Your task to perform on an android device: Clear the cart on costco. Add "razer thresher" to the cart on costco, then select checkout. Image 0: 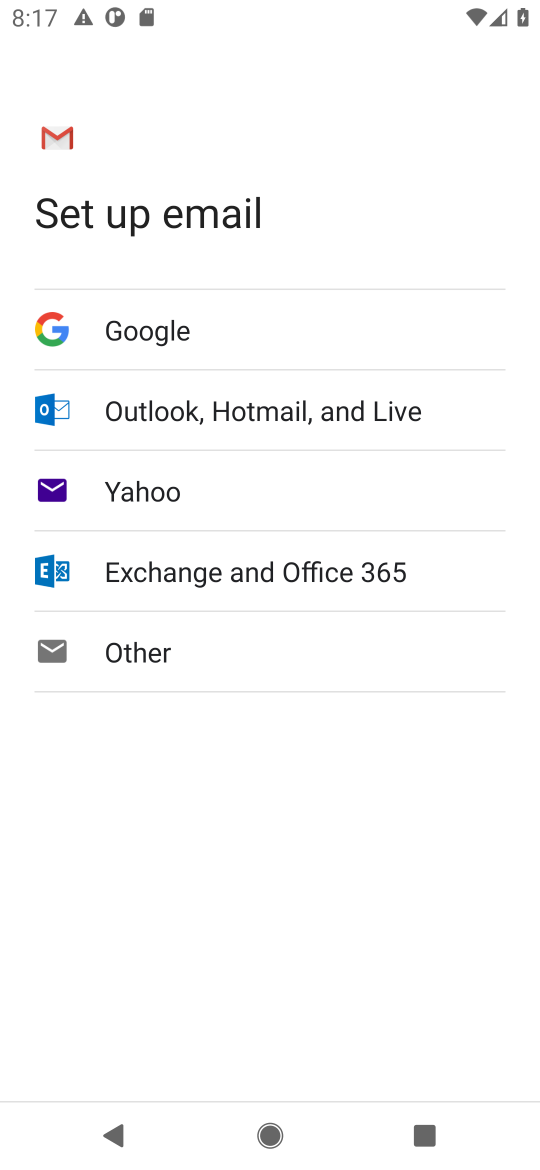
Step 0: press home button
Your task to perform on an android device: Clear the cart on costco. Add "razer thresher" to the cart on costco, then select checkout. Image 1: 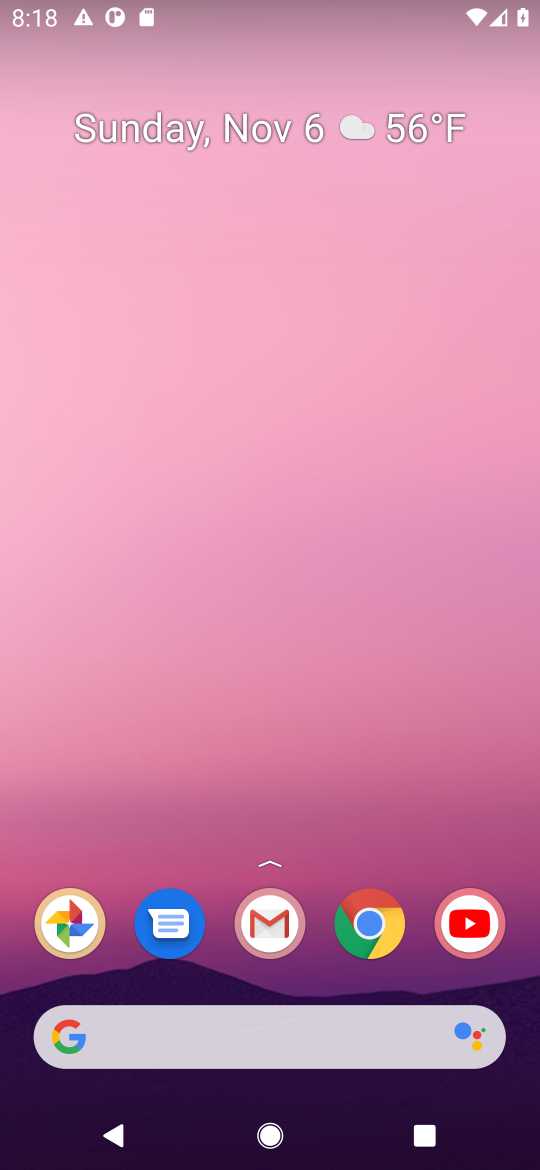
Step 1: click (374, 935)
Your task to perform on an android device: Clear the cart on costco. Add "razer thresher" to the cart on costco, then select checkout. Image 2: 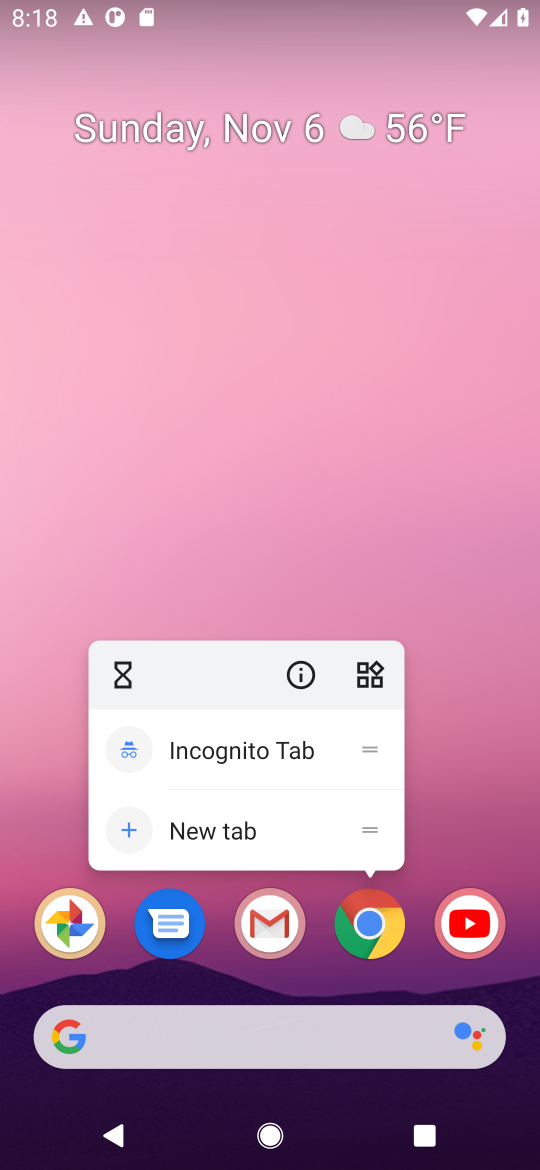
Step 2: click (374, 935)
Your task to perform on an android device: Clear the cart on costco. Add "razer thresher" to the cart on costco, then select checkout. Image 3: 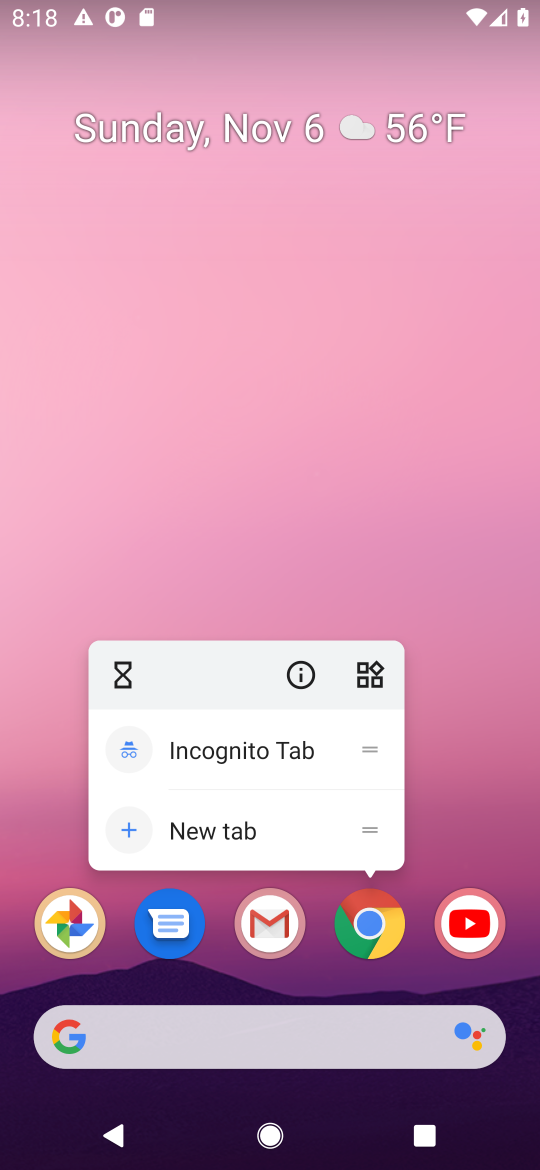
Step 3: click (374, 933)
Your task to perform on an android device: Clear the cart on costco. Add "razer thresher" to the cart on costco, then select checkout. Image 4: 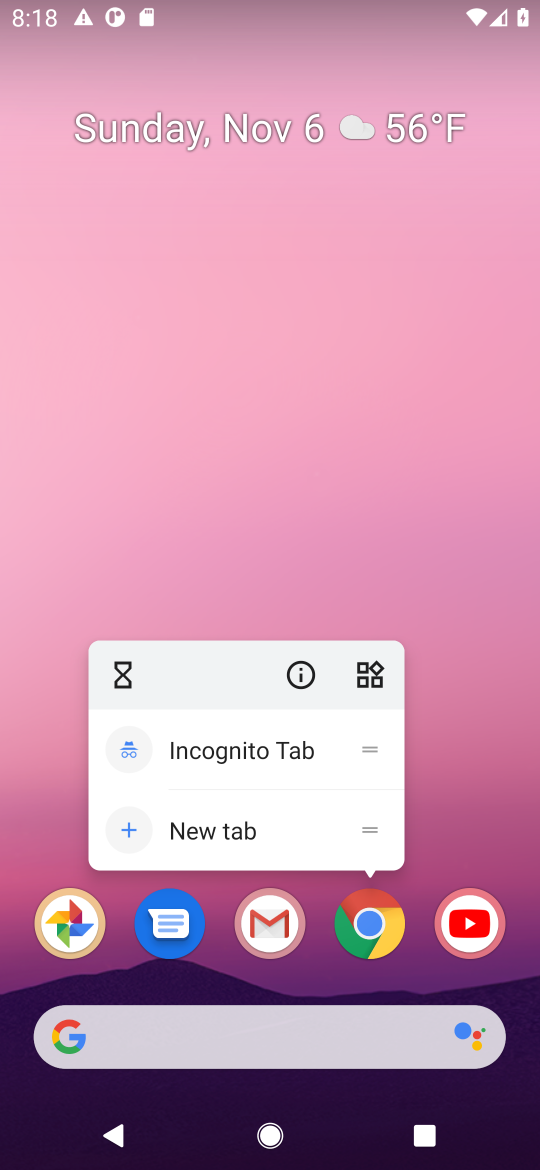
Step 4: click (374, 933)
Your task to perform on an android device: Clear the cart on costco. Add "razer thresher" to the cart on costco, then select checkout. Image 5: 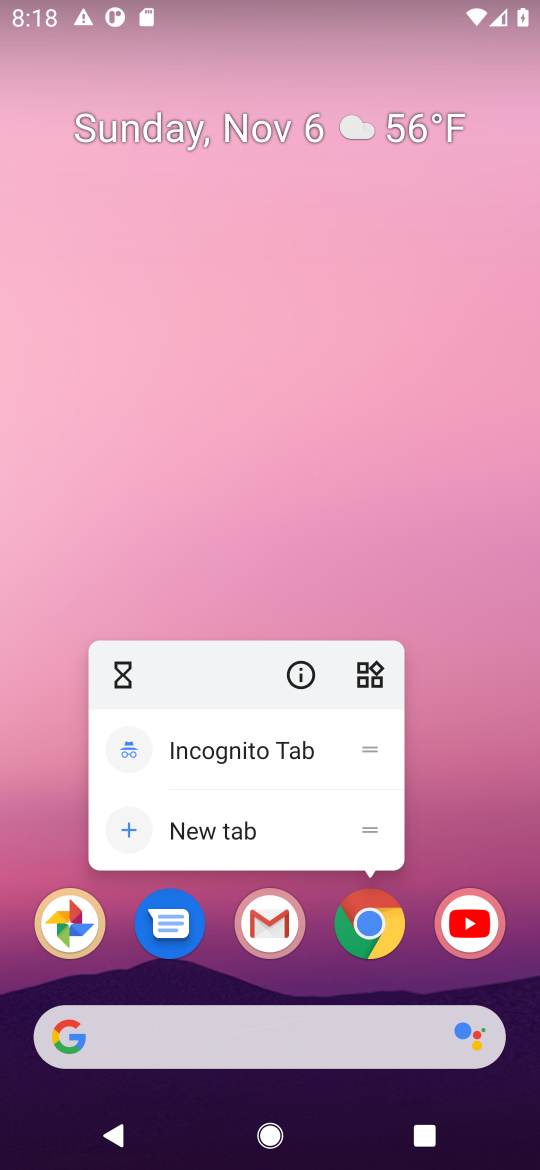
Step 5: click (371, 925)
Your task to perform on an android device: Clear the cart on costco. Add "razer thresher" to the cart on costco, then select checkout. Image 6: 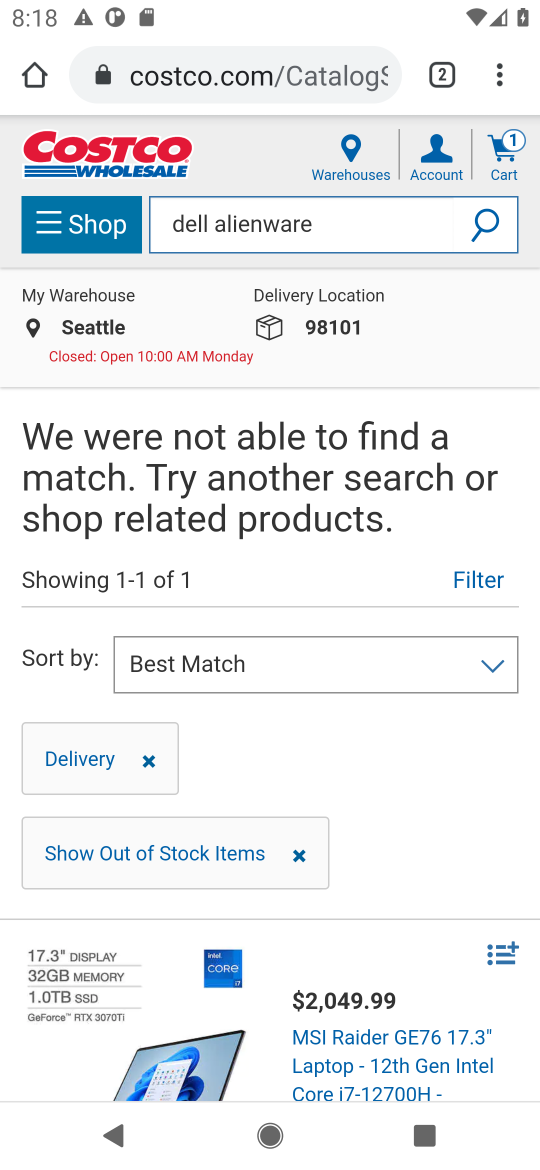
Step 6: click (494, 143)
Your task to perform on an android device: Clear the cart on costco. Add "razer thresher" to the cart on costco, then select checkout. Image 7: 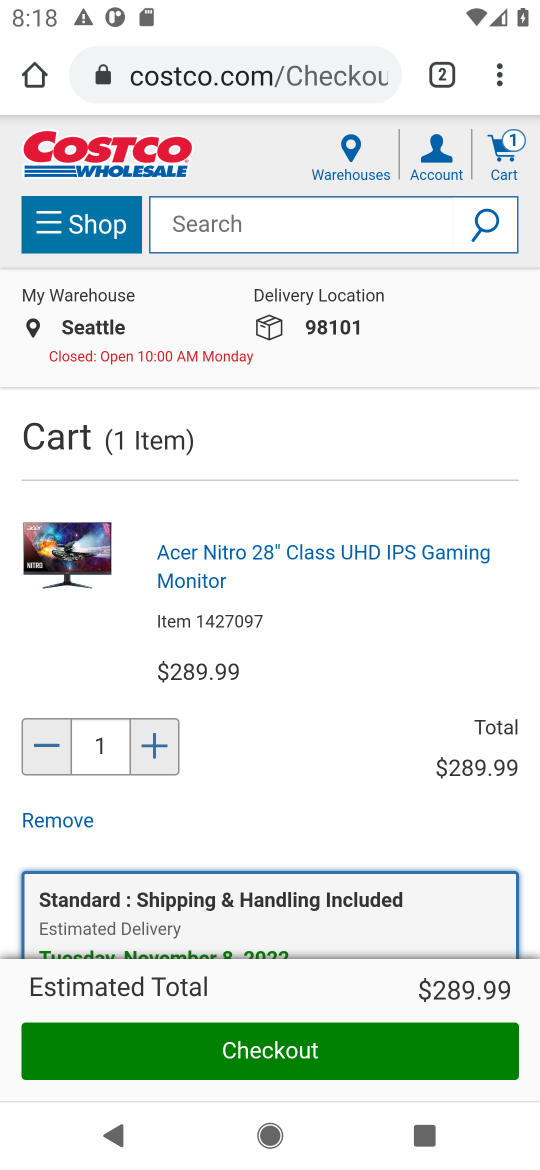
Step 7: click (69, 821)
Your task to perform on an android device: Clear the cart on costco. Add "razer thresher" to the cart on costco, then select checkout. Image 8: 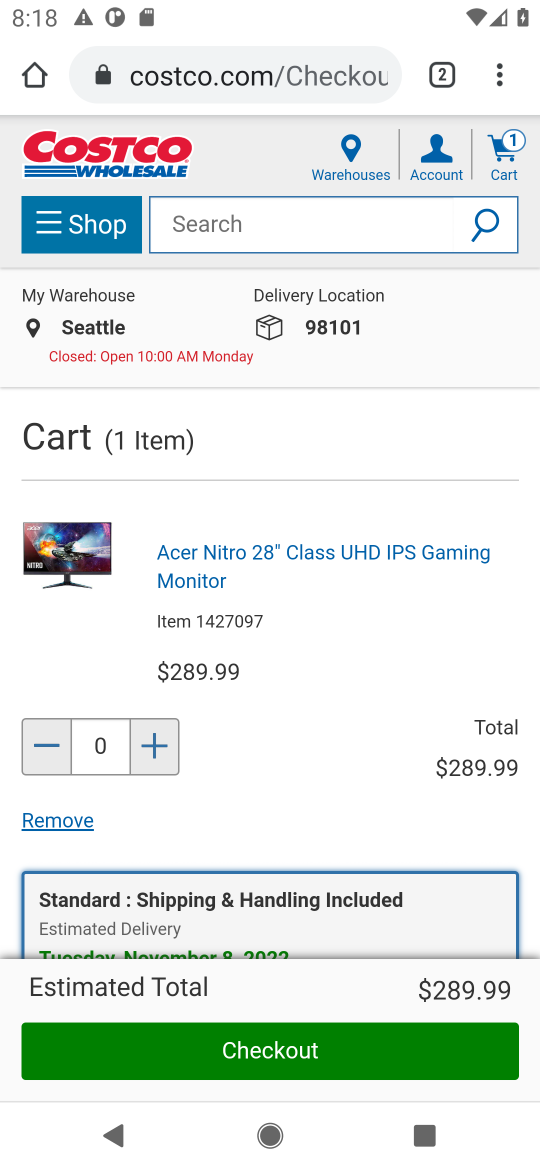
Step 8: drag from (277, 795) to (286, 524)
Your task to perform on an android device: Clear the cart on costco. Add "razer thresher" to the cart on costco, then select checkout. Image 9: 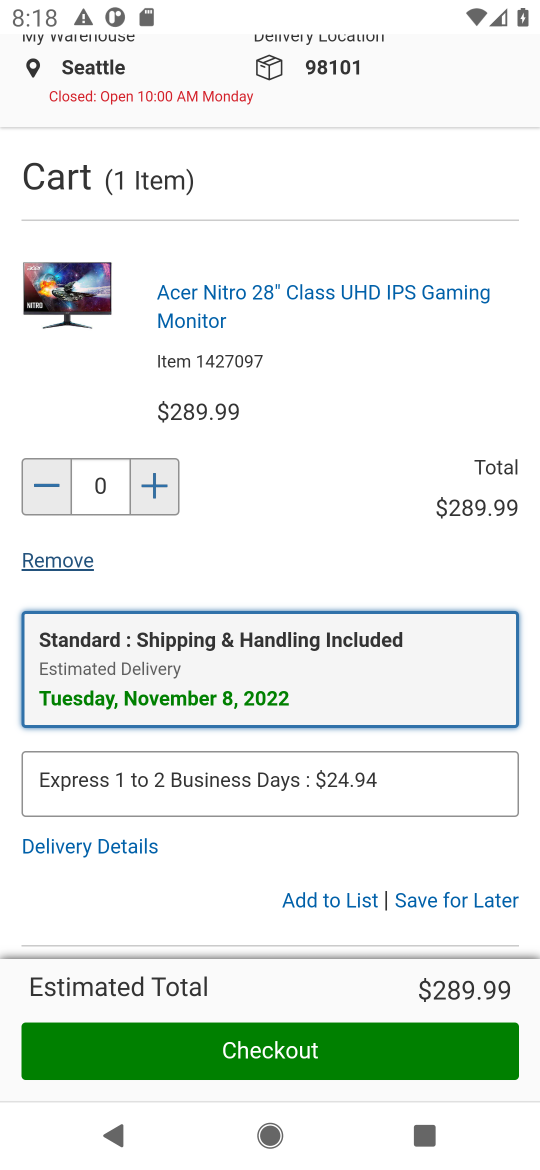
Step 9: drag from (232, 858) to (263, 622)
Your task to perform on an android device: Clear the cart on costco. Add "razer thresher" to the cart on costco, then select checkout. Image 10: 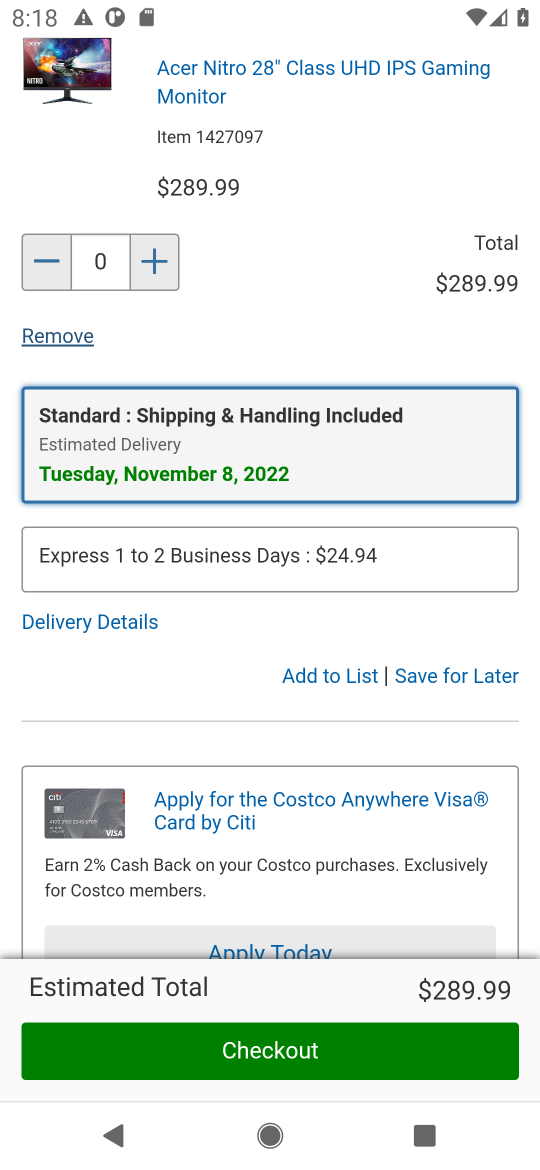
Step 10: click (442, 685)
Your task to perform on an android device: Clear the cart on costco. Add "razer thresher" to the cart on costco, then select checkout. Image 11: 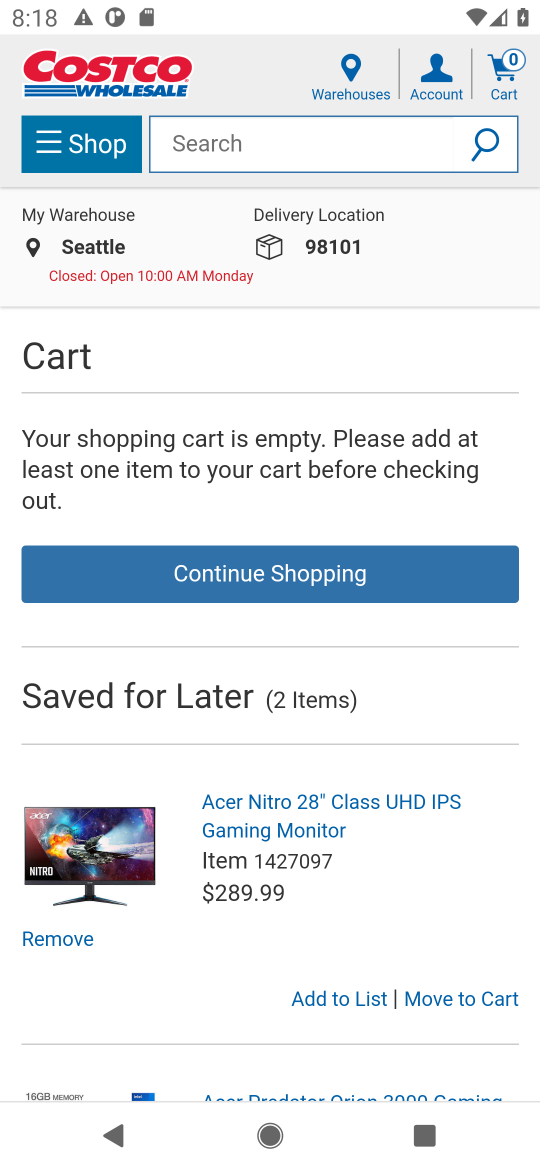
Step 11: click (213, 138)
Your task to perform on an android device: Clear the cart on costco. Add "razer thresher" to the cart on costco, then select checkout. Image 12: 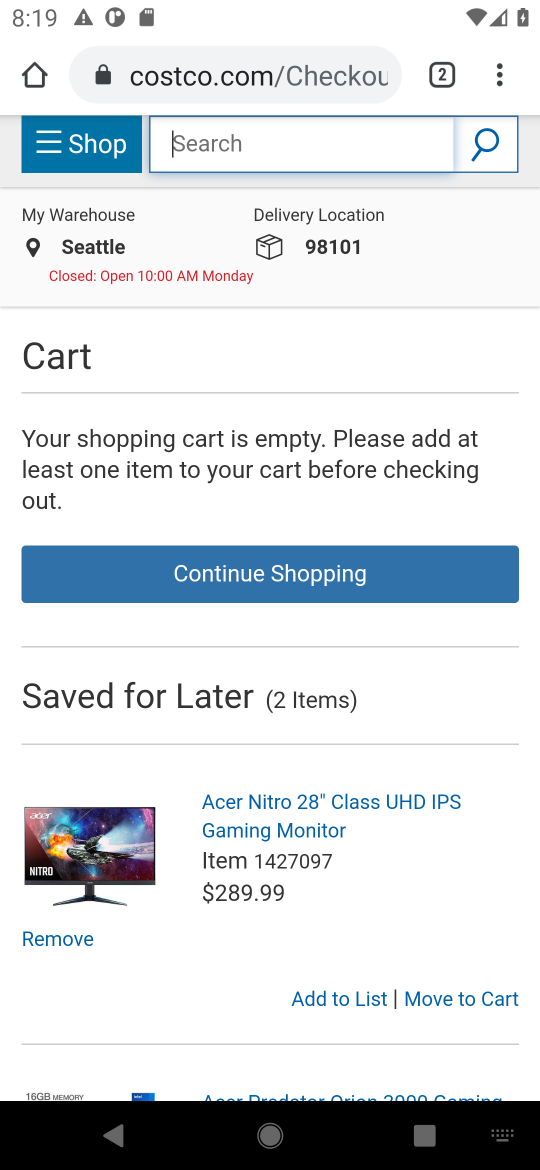
Step 12: type "razer threshe"
Your task to perform on an android device: Clear the cart on costco. Add "razer thresher" to the cart on costco, then select checkout. Image 13: 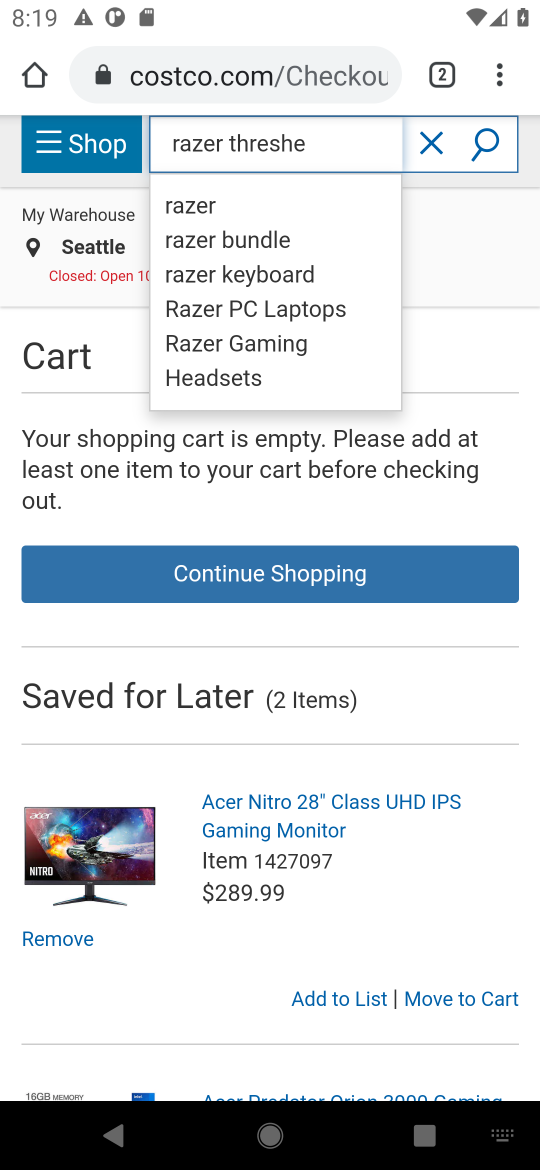
Step 13: click (482, 136)
Your task to perform on an android device: Clear the cart on costco. Add "razer thresher" to the cart on costco, then select checkout. Image 14: 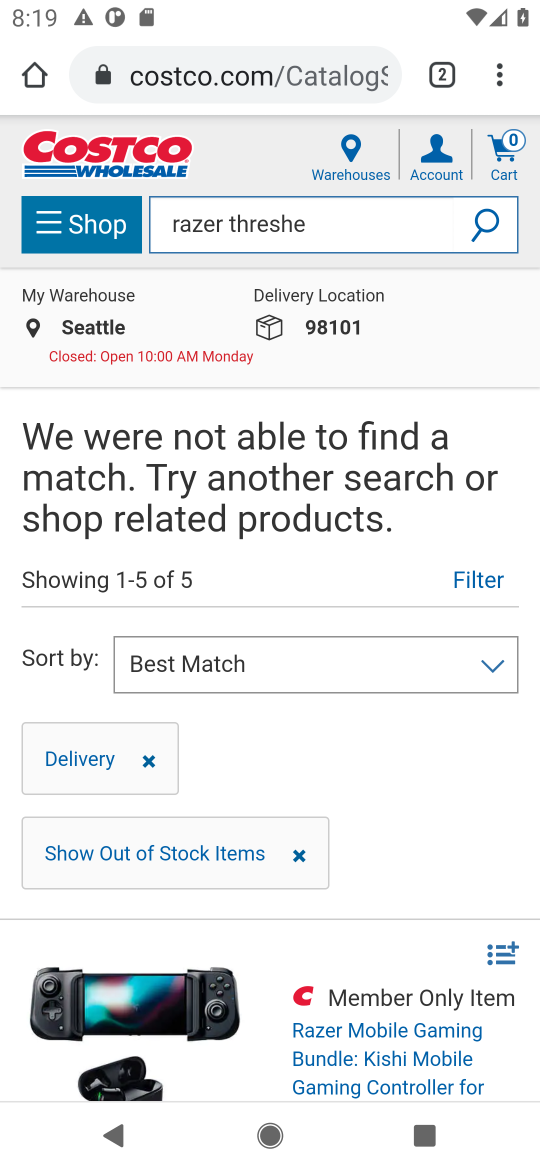
Step 14: click (315, 231)
Your task to perform on an android device: Clear the cart on costco. Add "razer thresher" to the cart on costco, then select checkout. Image 15: 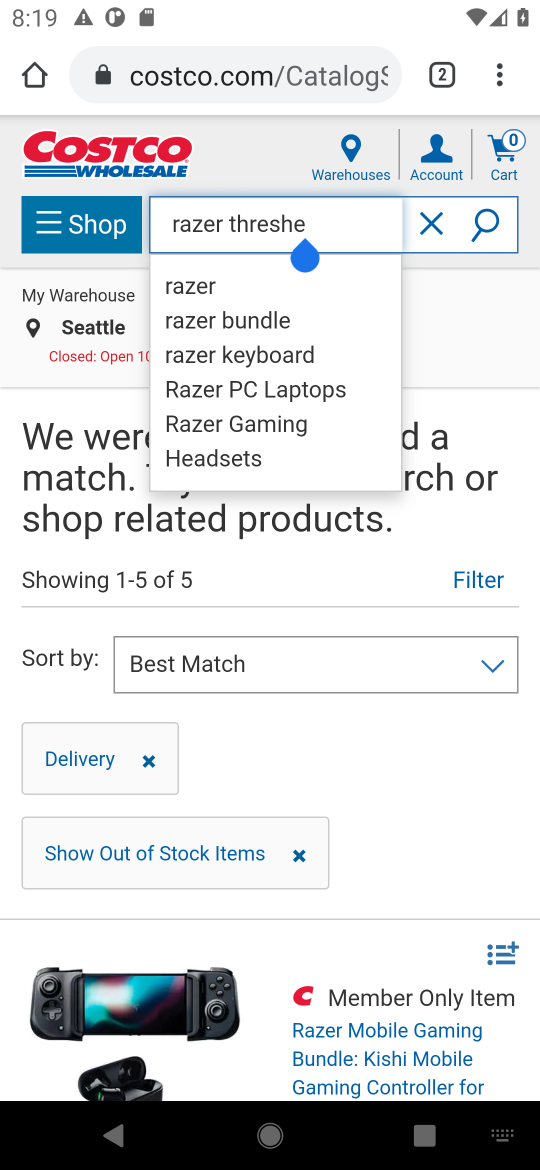
Step 15: type "r"
Your task to perform on an android device: Clear the cart on costco. Add "razer thresher" to the cart on costco, then select checkout. Image 16: 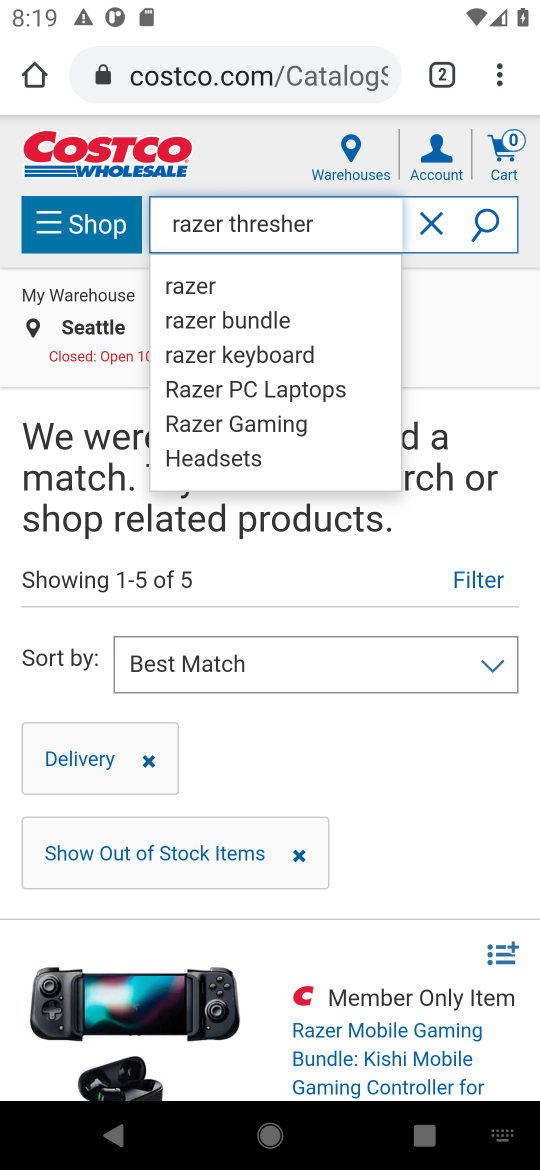
Step 16: click (492, 223)
Your task to perform on an android device: Clear the cart on costco. Add "razer thresher" to the cart on costco, then select checkout. Image 17: 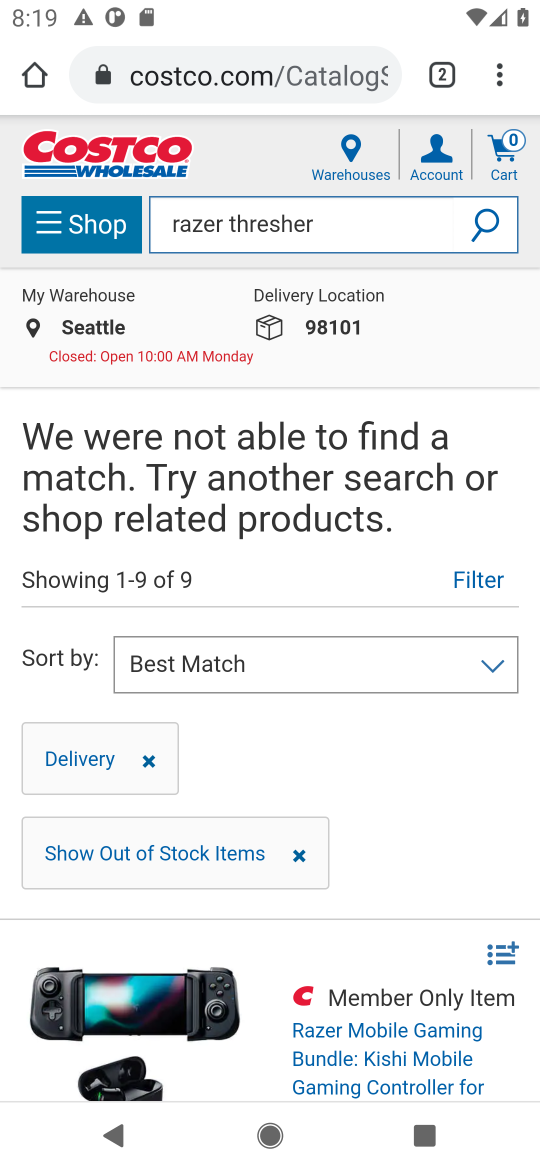
Step 17: task complete